Your task to perform on an android device: turn off notifications in google photos Image 0: 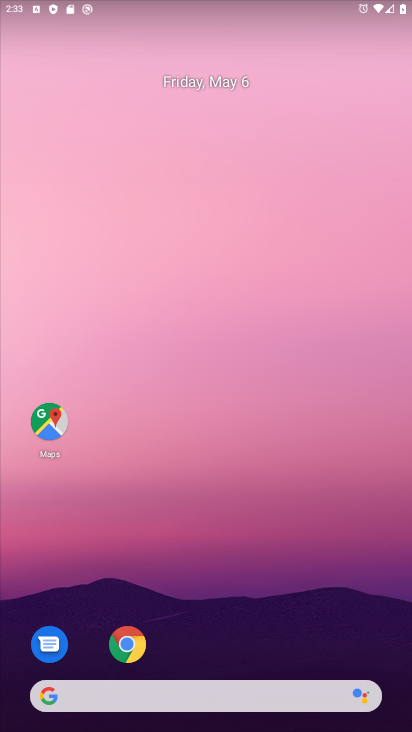
Step 0: drag from (242, 730) to (280, 8)
Your task to perform on an android device: turn off notifications in google photos Image 1: 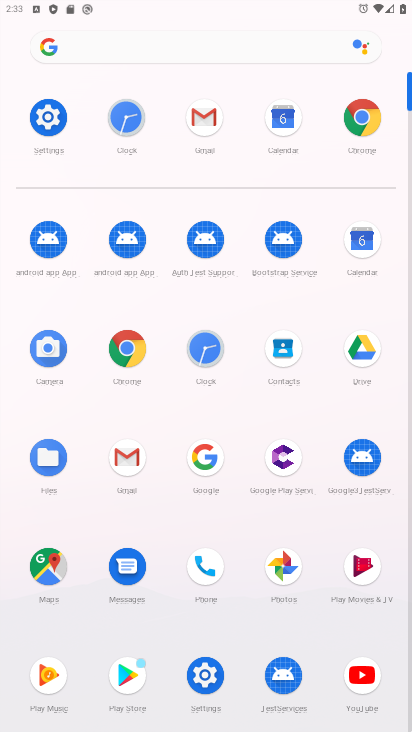
Step 1: click (279, 569)
Your task to perform on an android device: turn off notifications in google photos Image 2: 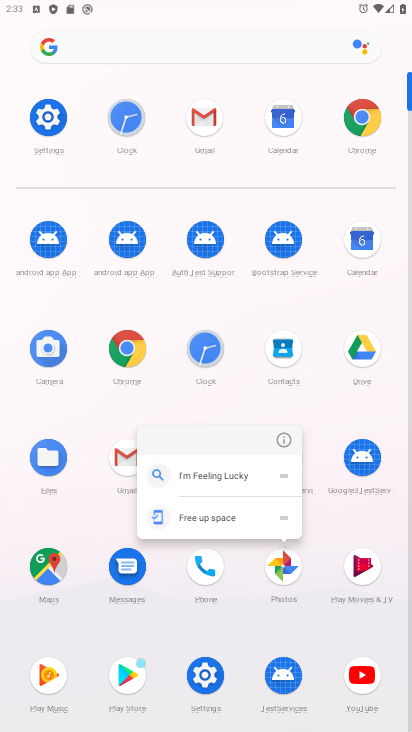
Step 2: click (283, 436)
Your task to perform on an android device: turn off notifications in google photos Image 3: 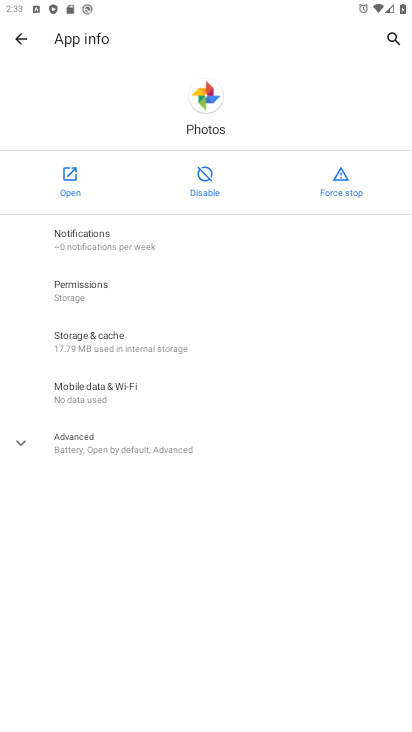
Step 3: click (231, 243)
Your task to perform on an android device: turn off notifications in google photos Image 4: 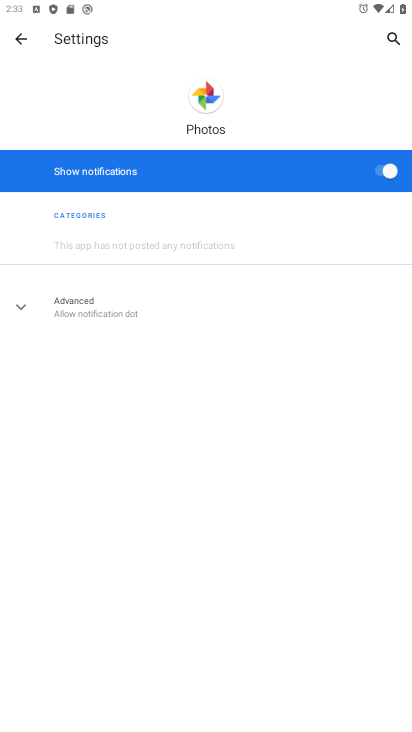
Step 4: click (388, 169)
Your task to perform on an android device: turn off notifications in google photos Image 5: 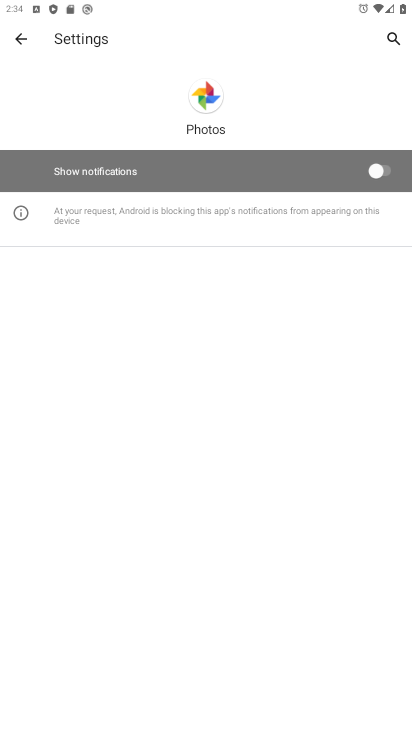
Step 5: task complete